Your task to perform on an android device: Is it going to rain today? Image 0: 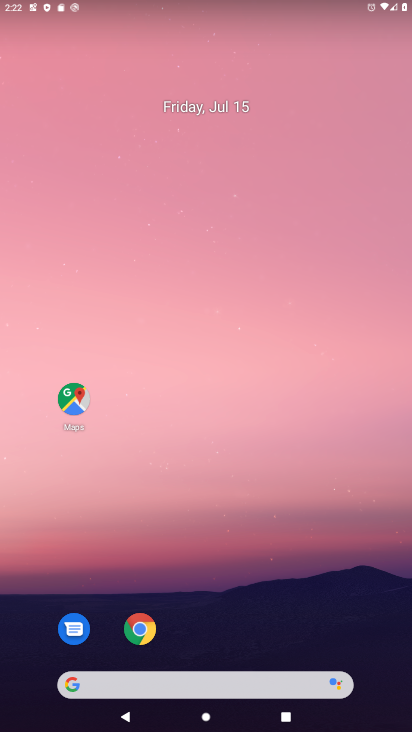
Step 0: drag from (333, 435) to (306, 1)
Your task to perform on an android device: Is it going to rain today? Image 1: 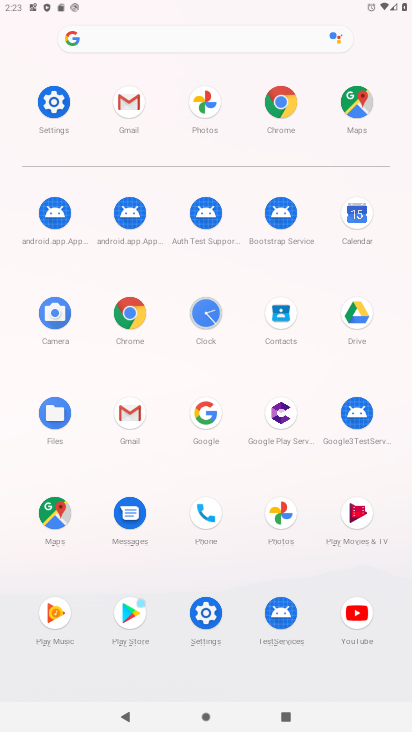
Step 1: click (283, 101)
Your task to perform on an android device: Is it going to rain today? Image 2: 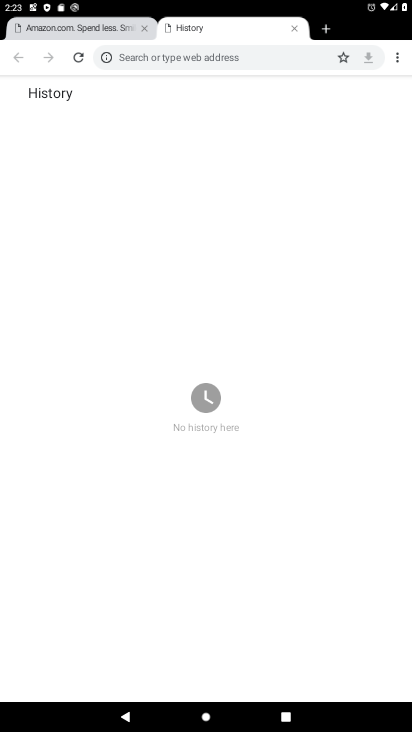
Step 2: click (170, 53)
Your task to perform on an android device: Is it going to rain today? Image 3: 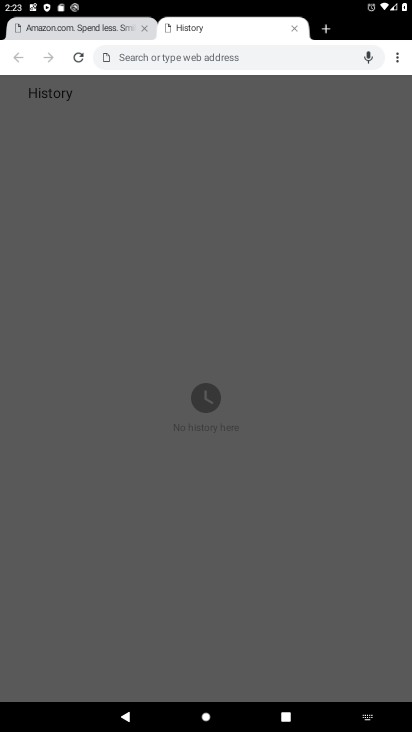
Step 3: type ""
Your task to perform on an android device: Is it going to rain today? Image 4: 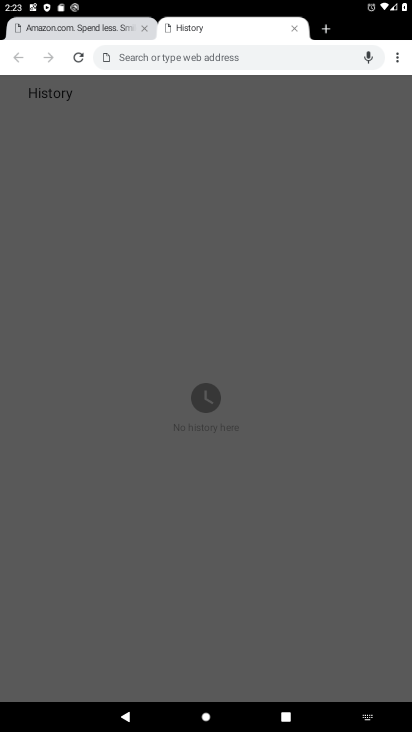
Step 4: type "weather"
Your task to perform on an android device: Is it going to rain today? Image 5: 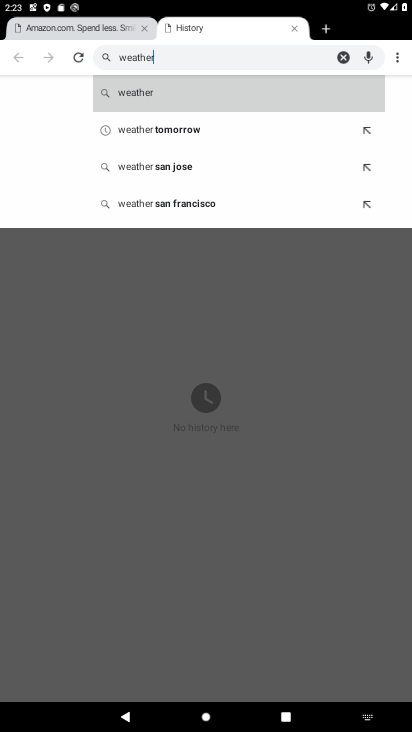
Step 5: click (147, 96)
Your task to perform on an android device: Is it going to rain today? Image 6: 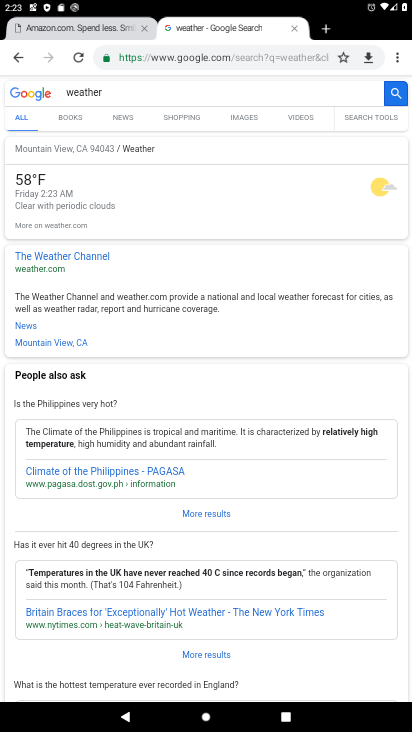
Step 6: task complete